Your task to perform on an android device: See recent photos Image 0: 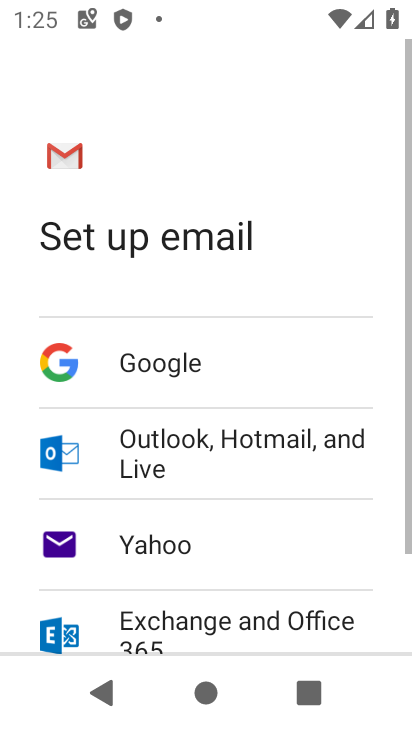
Step 0: press home button
Your task to perform on an android device: See recent photos Image 1: 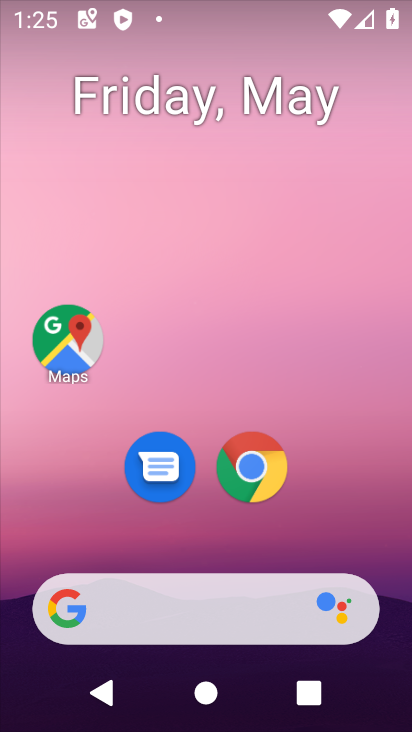
Step 1: drag from (372, 528) to (349, 127)
Your task to perform on an android device: See recent photos Image 2: 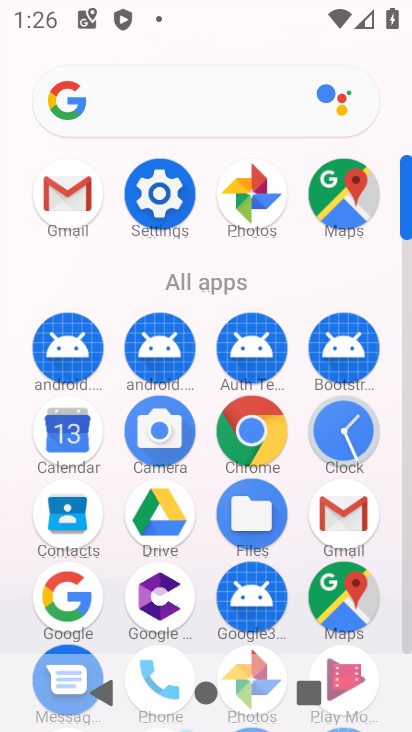
Step 2: click (265, 182)
Your task to perform on an android device: See recent photos Image 3: 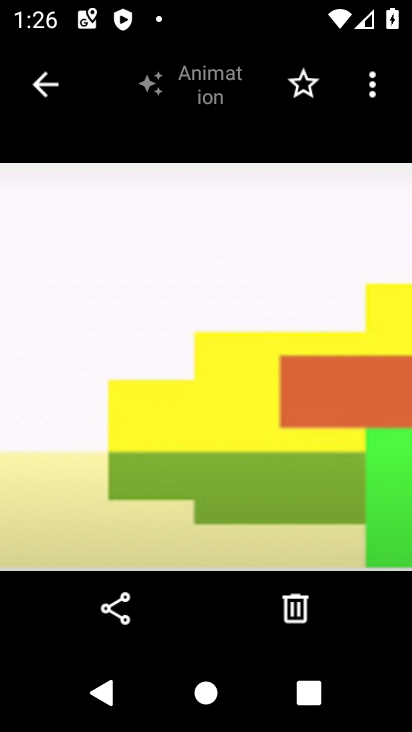
Step 3: task complete